Your task to perform on an android device: Open privacy settings Image 0: 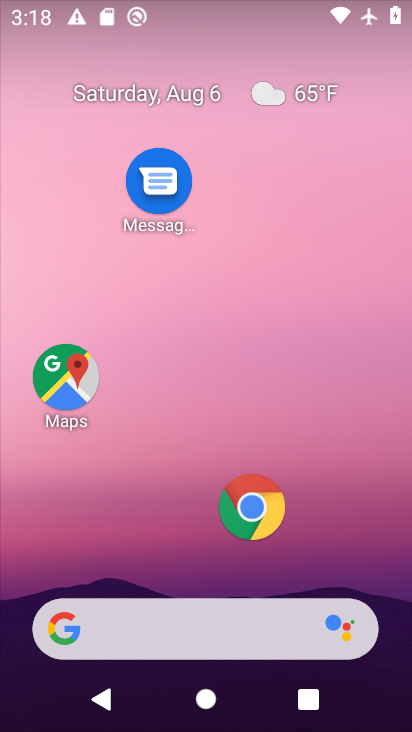
Step 0: drag from (163, 549) to (203, 253)
Your task to perform on an android device: Open privacy settings Image 1: 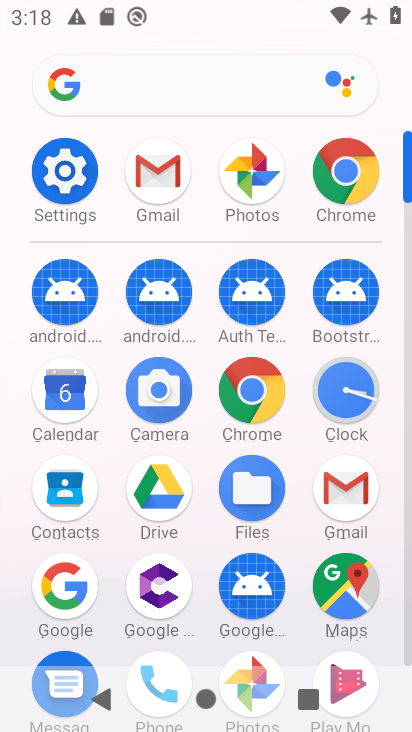
Step 1: drag from (262, 582) to (268, 367)
Your task to perform on an android device: Open privacy settings Image 2: 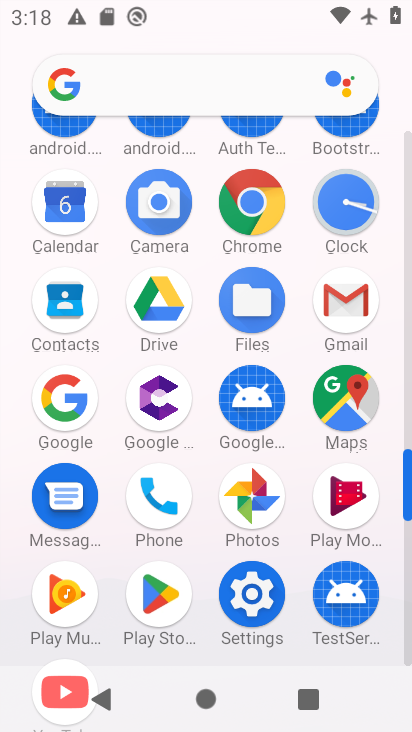
Step 2: click (255, 615)
Your task to perform on an android device: Open privacy settings Image 3: 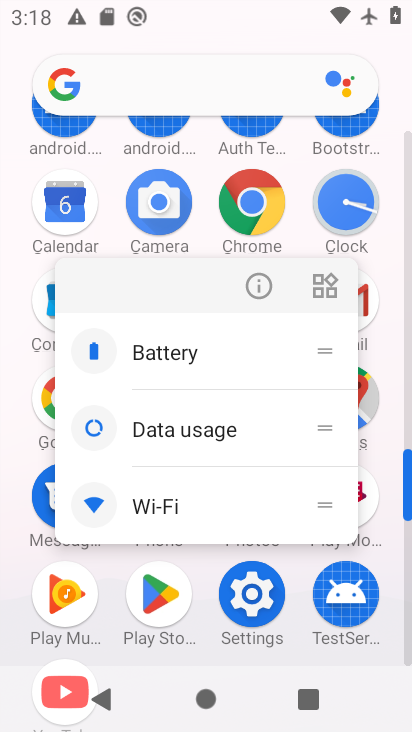
Step 3: click (255, 615)
Your task to perform on an android device: Open privacy settings Image 4: 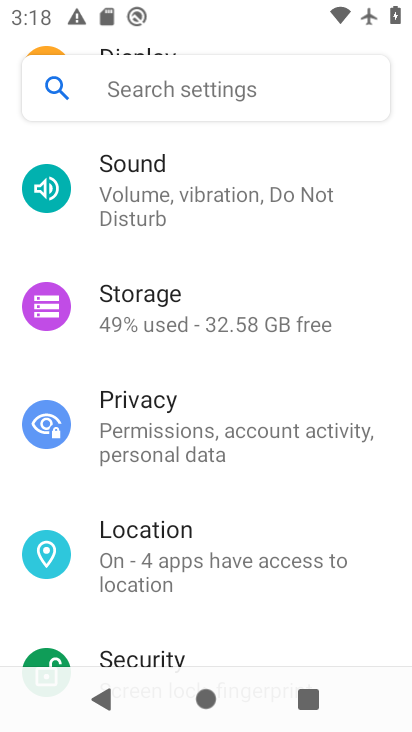
Step 4: click (181, 423)
Your task to perform on an android device: Open privacy settings Image 5: 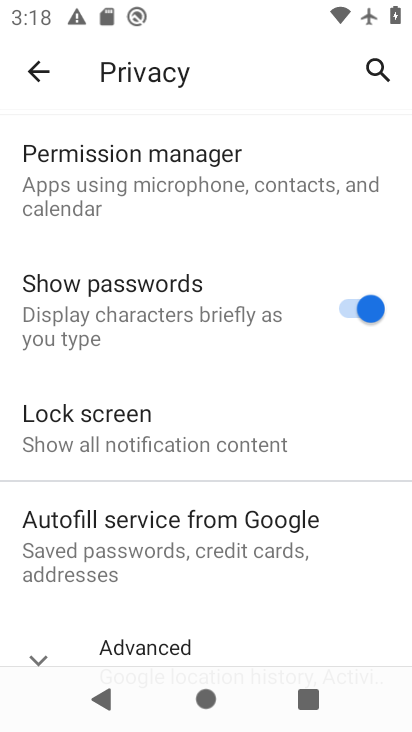
Step 5: task complete